Your task to perform on an android device: open wifi settings Image 0: 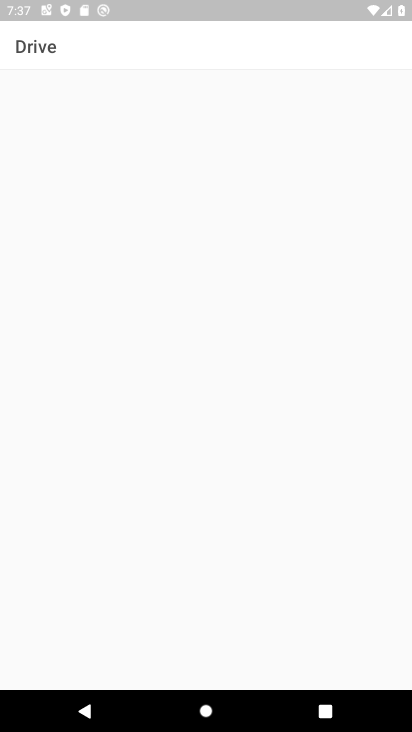
Step 0: press home button
Your task to perform on an android device: open wifi settings Image 1: 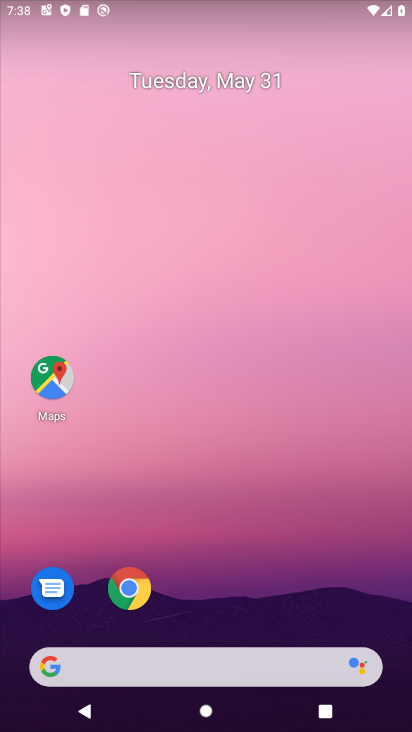
Step 1: drag from (223, 616) to (320, 123)
Your task to perform on an android device: open wifi settings Image 2: 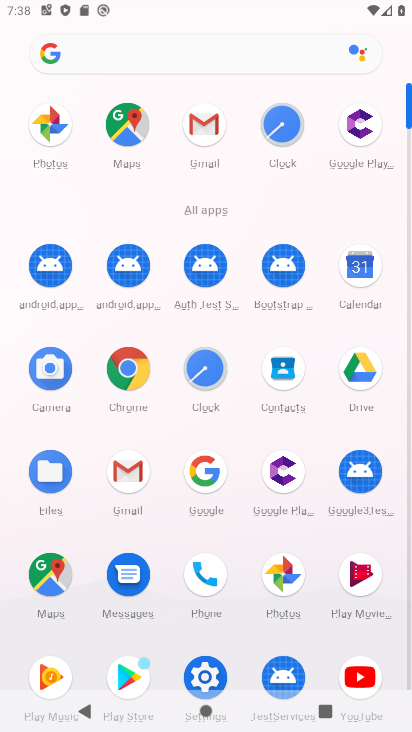
Step 2: click (206, 668)
Your task to perform on an android device: open wifi settings Image 3: 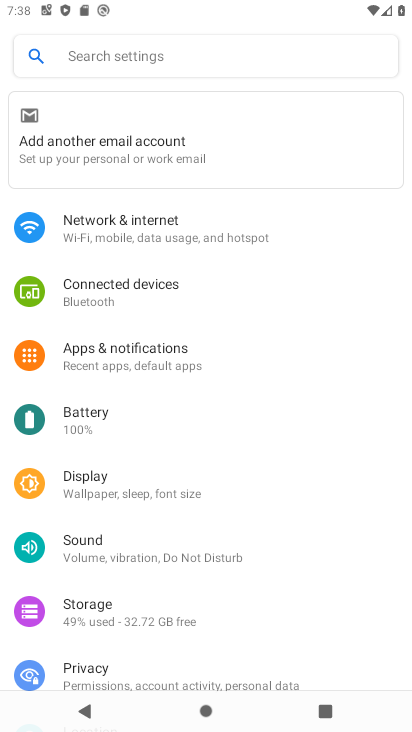
Step 3: click (148, 238)
Your task to perform on an android device: open wifi settings Image 4: 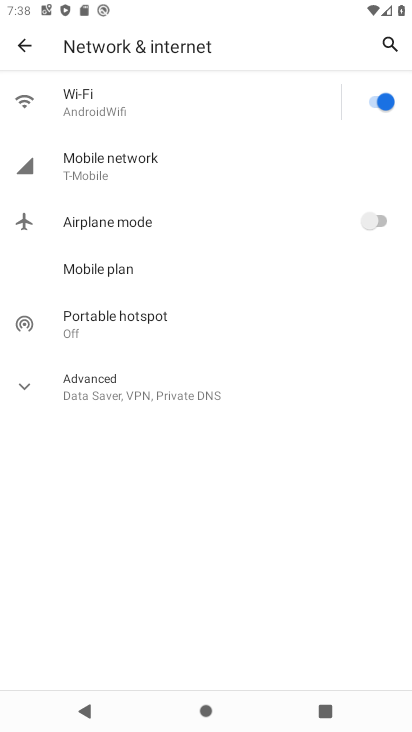
Step 4: click (157, 107)
Your task to perform on an android device: open wifi settings Image 5: 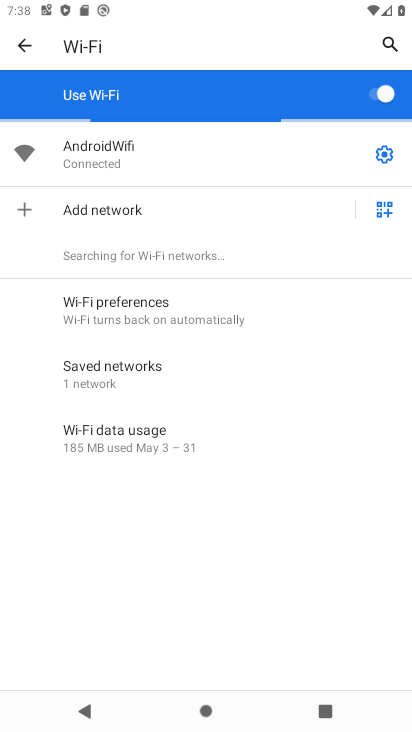
Step 5: task complete